Your task to perform on an android device: Search for pizza restaurants on Maps Image 0: 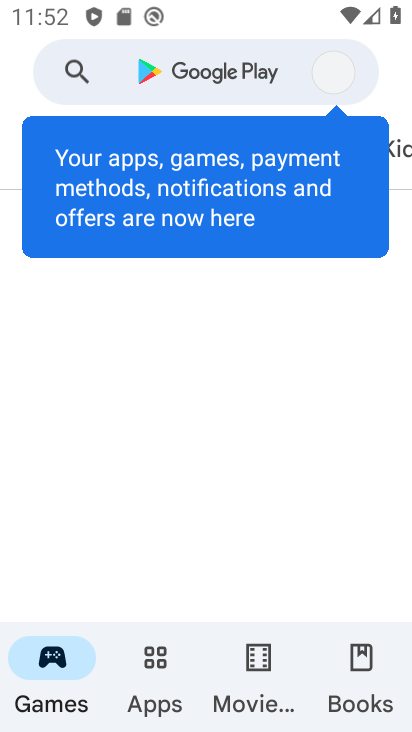
Step 0: press home button
Your task to perform on an android device: Search for pizza restaurants on Maps Image 1: 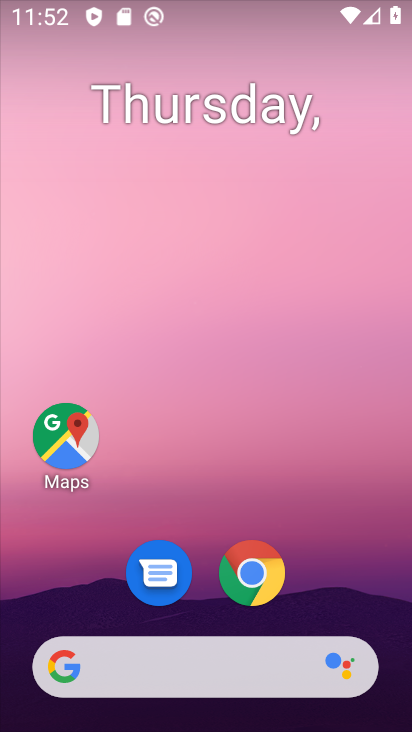
Step 1: click (70, 435)
Your task to perform on an android device: Search for pizza restaurants on Maps Image 2: 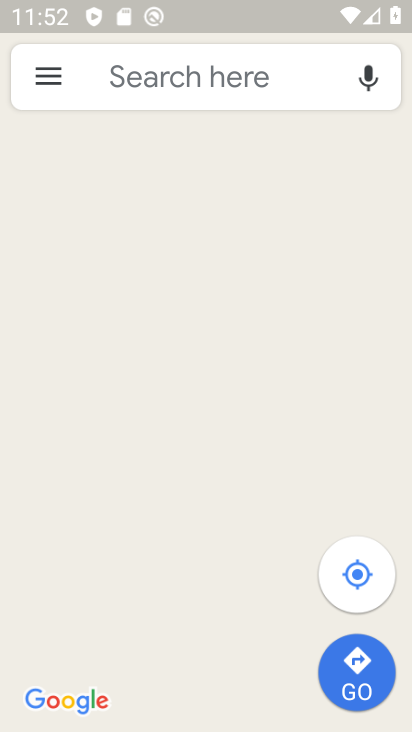
Step 2: click (199, 86)
Your task to perform on an android device: Search for pizza restaurants on Maps Image 3: 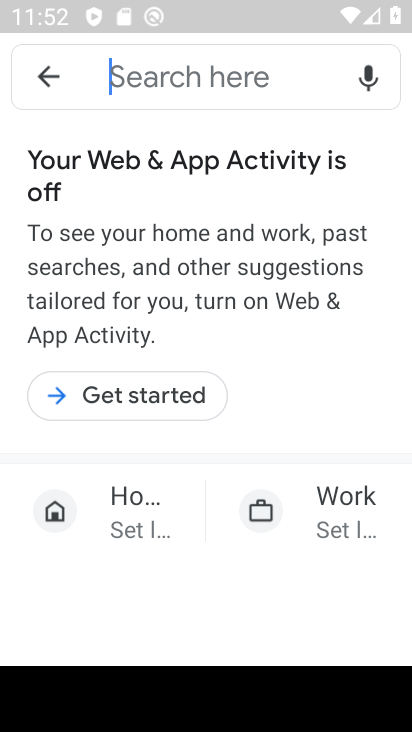
Step 3: click (143, 403)
Your task to perform on an android device: Search for pizza restaurants on Maps Image 4: 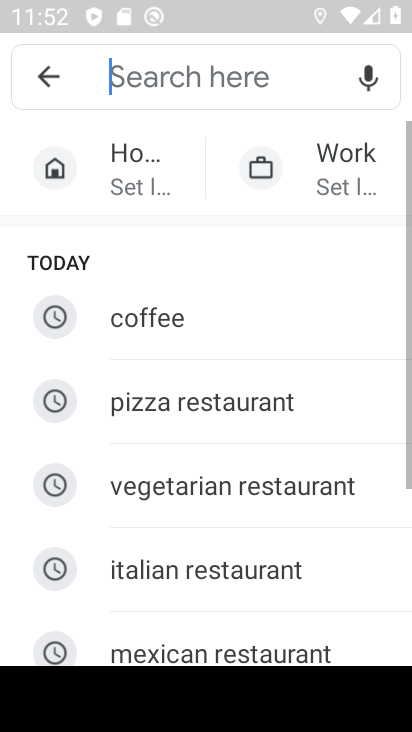
Step 4: click (203, 404)
Your task to perform on an android device: Search for pizza restaurants on Maps Image 5: 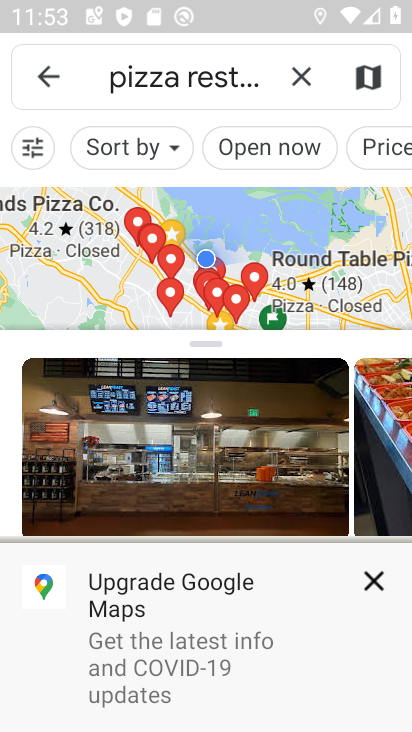
Step 5: task complete